Your task to perform on an android device: toggle improve location accuracy Image 0: 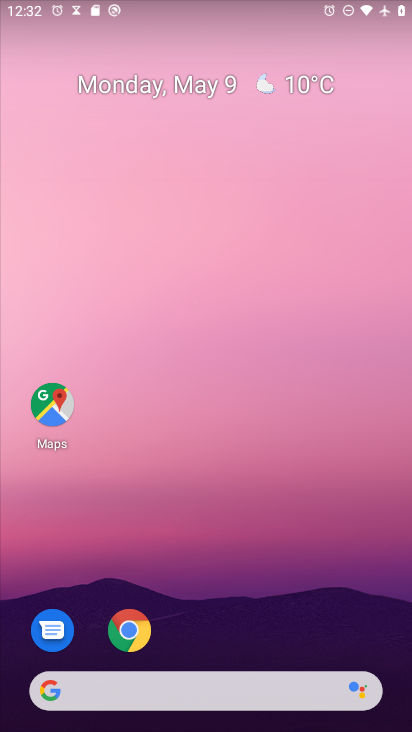
Step 0: drag from (158, 701) to (384, 212)
Your task to perform on an android device: toggle improve location accuracy Image 1: 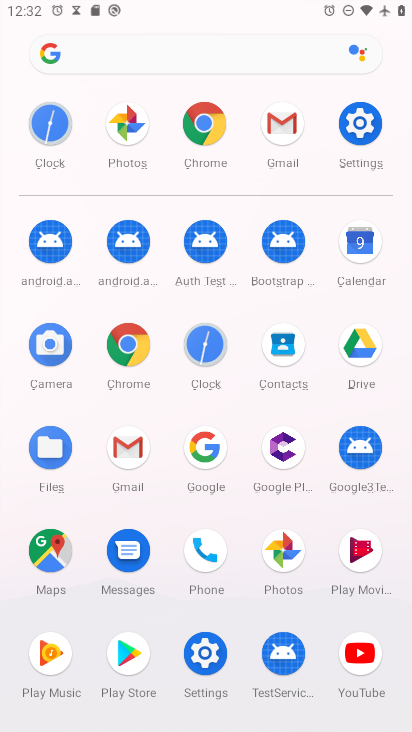
Step 1: click (364, 129)
Your task to perform on an android device: toggle improve location accuracy Image 2: 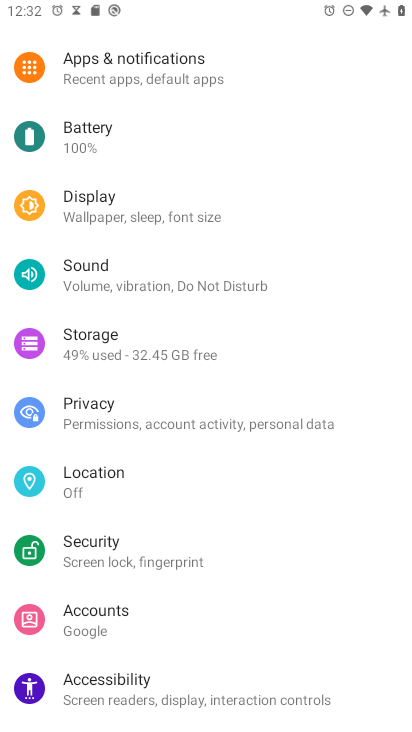
Step 2: click (154, 485)
Your task to perform on an android device: toggle improve location accuracy Image 3: 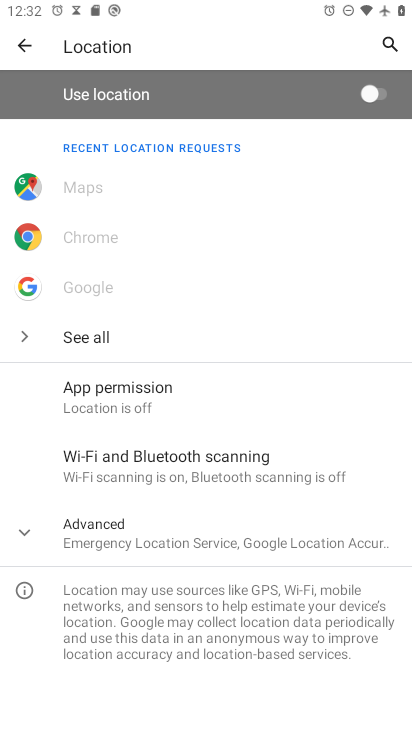
Step 3: click (154, 542)
Your task to perform on an android device: toggle improve location accuracy Image 4: 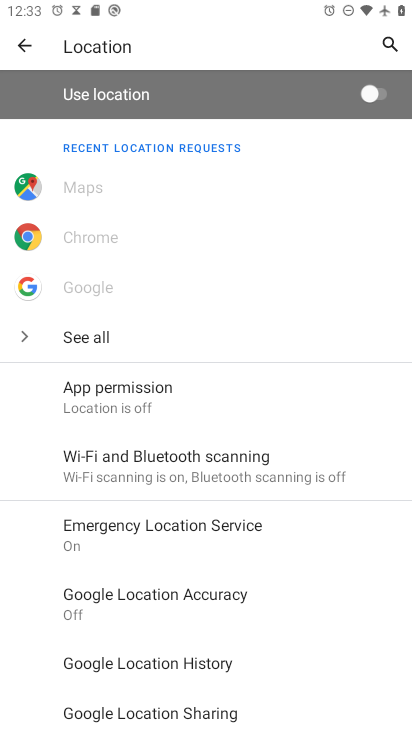
Step 4: click (149, 595)
Your task to perform on an android device: toggle improve location accuracy Image 5: 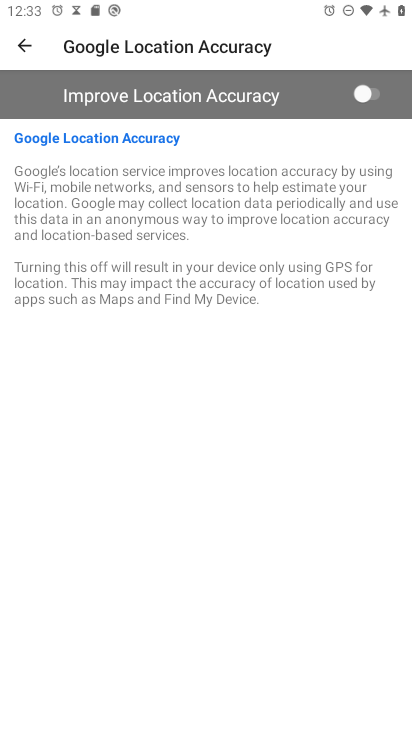
Step 5: click (368, 91)
Your task to perform on an android device: toggle improve location accuracy Image 6: 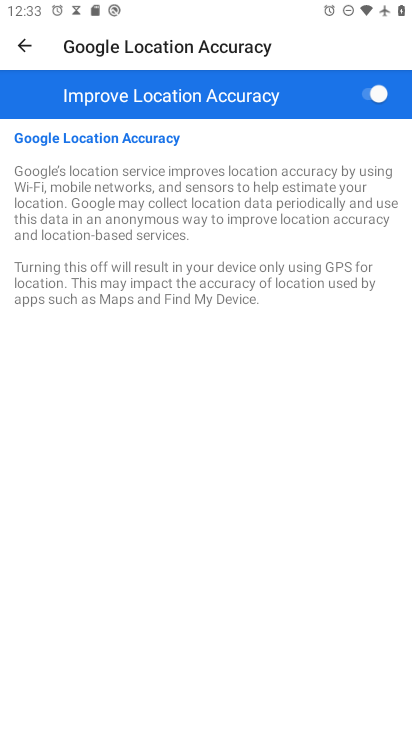
Step 6: task complete